Your task to perform on an android device: star an email in the gmail app Image 0: 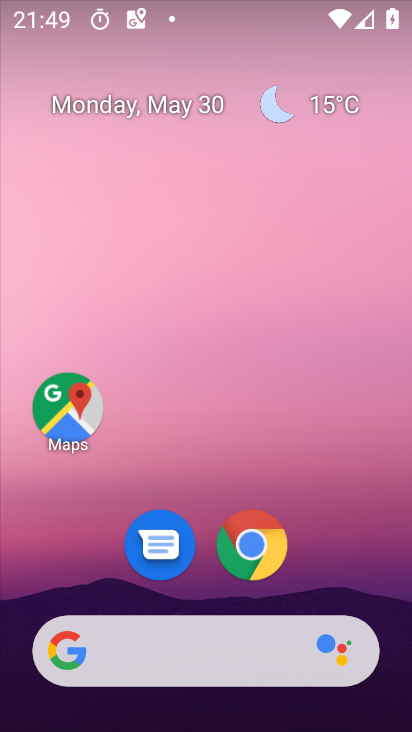
Step 0: drag from (321, 567) to (304, 168)
Your task to perform on an android device: star an email in the gmail app Image 1: 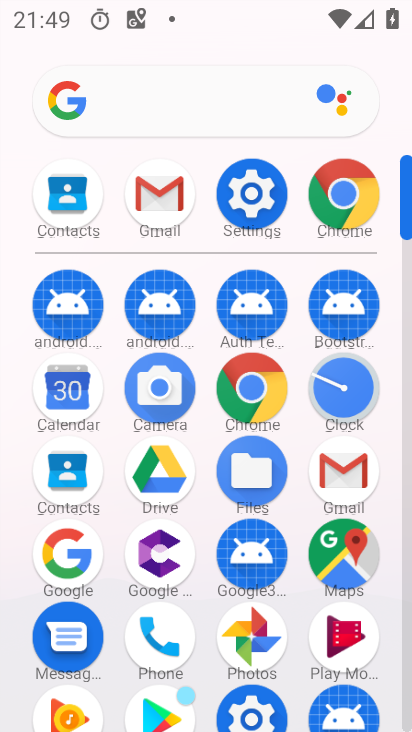
Step 1: click (349, 471)
Your task to perform on an android device: star an email in the gmail app Image 2: 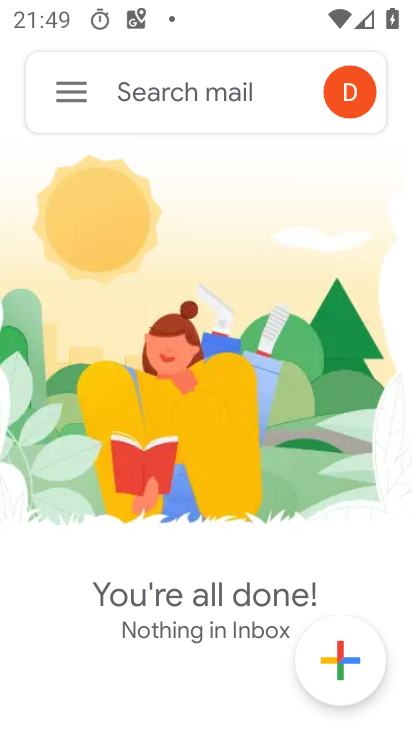
Step 2: click (62, 88)
Your task to perform on an android device: star an email in the gmail app Image 3: 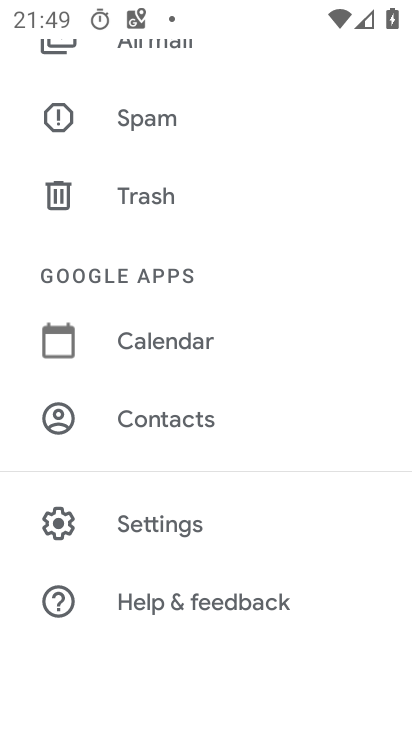
Step 3: click (175, 41)
Your task to perform on an android device: star an email in the gmail app Image 4: 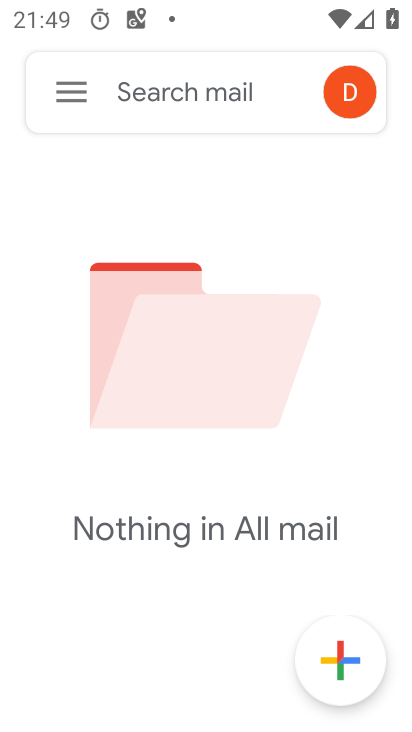
Step 4: task complete